Your task to perform on an android device: Open internet settings Image 0: 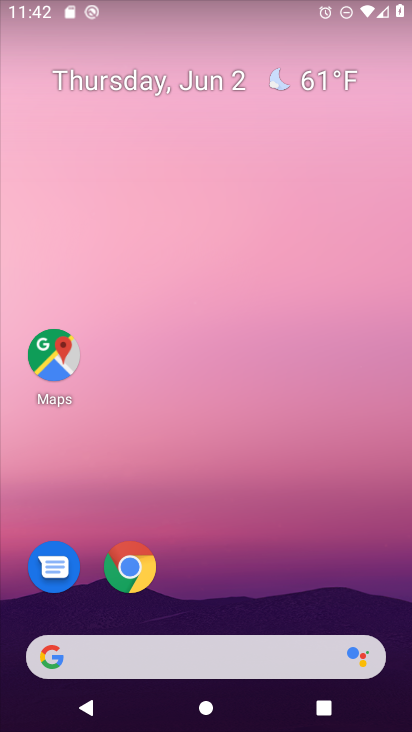
Step 0: drag from (322, 562) to (268, 148)
Your task to perform on an android device: Open internet settings Image 1: 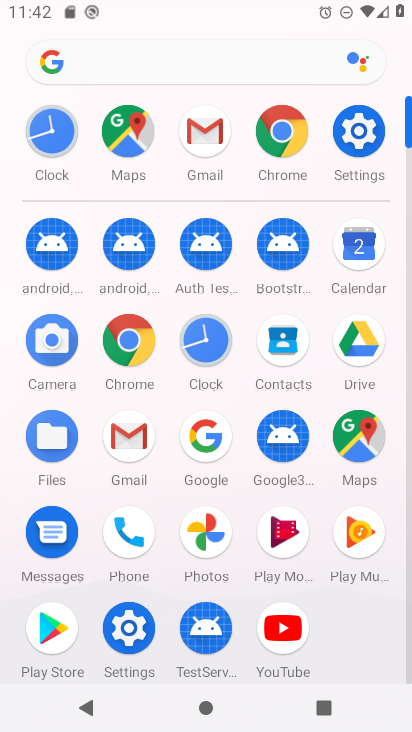
Step 1: click (364, 128)
Your task to perform on an android device: Open internet settings Image 2: 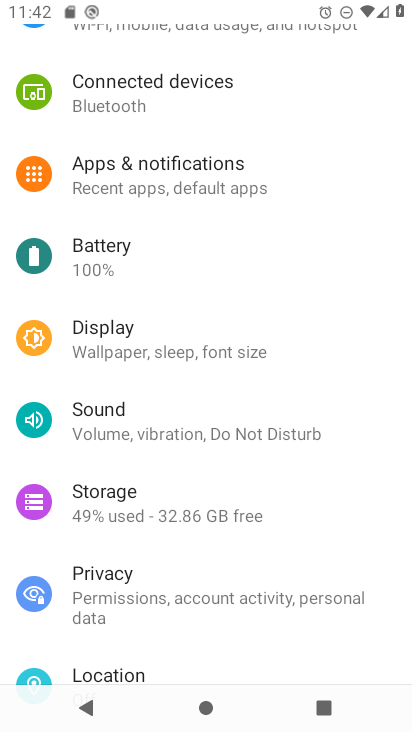
Step 2: drag from (243, 208) to (225, 613)
Your task to perform on an android device: Open internet settings Image 3: 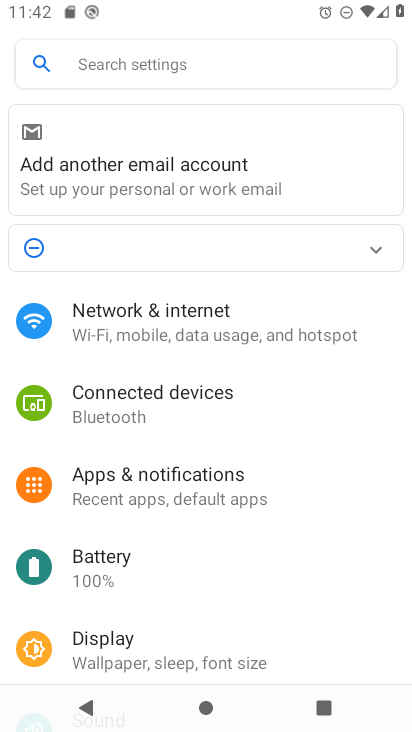
Step 3: click (173, 319)
Your task to perform on an android device: Open internet settings Image 4: 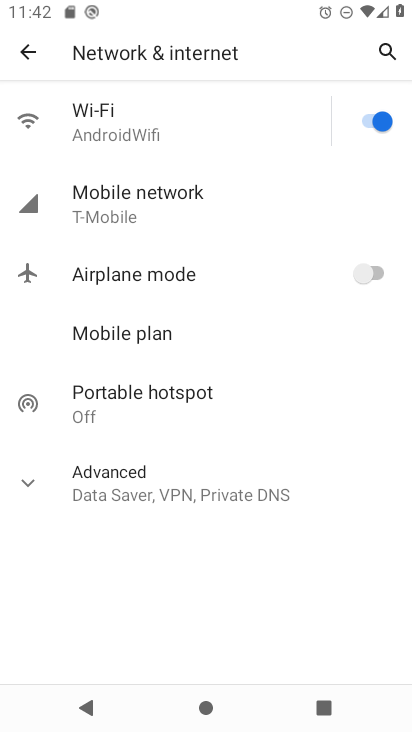
Step 4: click (160, 473)
Your task to perform on an android device: Open internet settings Image 5: 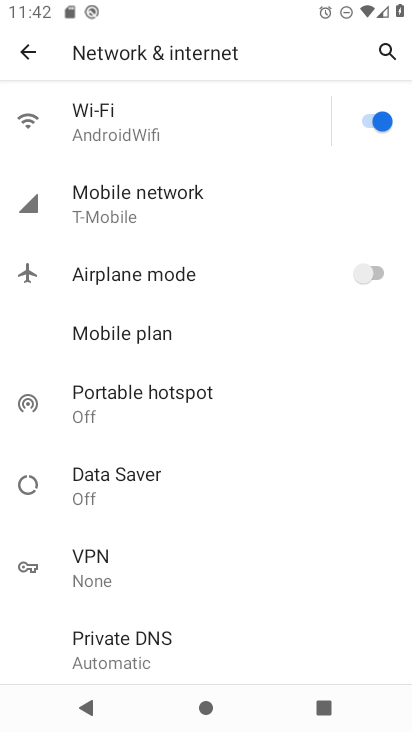
Step 5: task complete